Your task to perform on an android device: What's the weather going to be this weekend? Image 0: 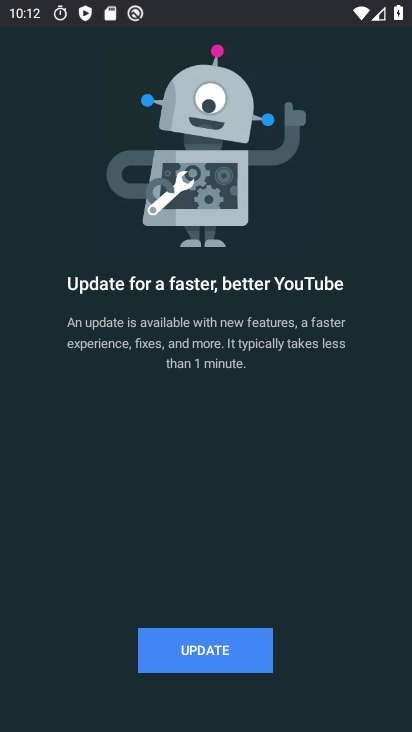
Step 0: press home button
Your task to perform on an android device: What's the weather going to be this weekend? Image 1: 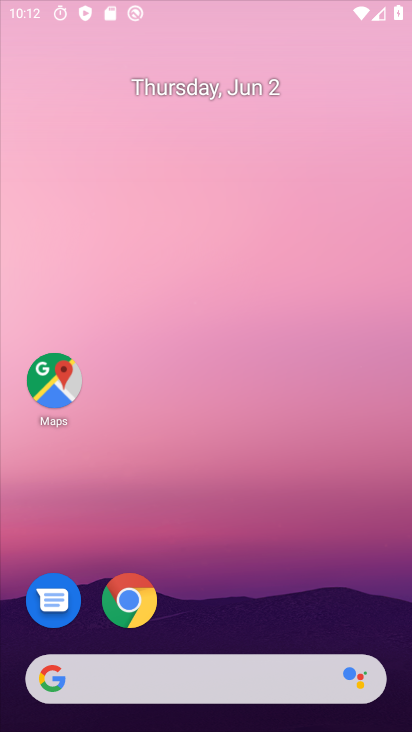
Step 1: drag from (206, 616) to (245, 69)
Your task to perform on an android device: What's the weather going to be this weekend? Image 2: 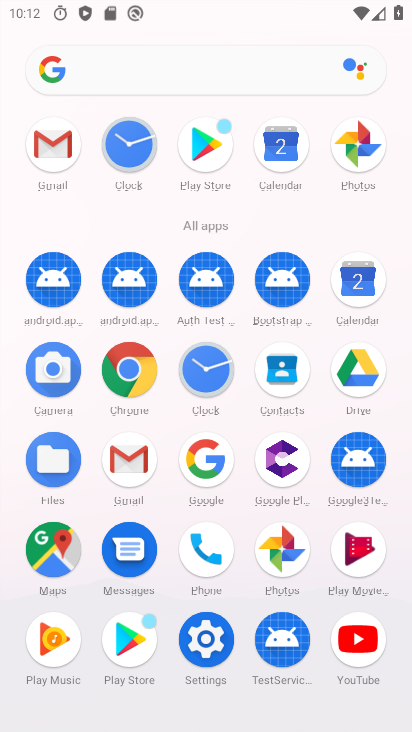
Step 2: click (203, 455)
Your task to perform on an android device: What's the weather going to be this weekend? Image 3: 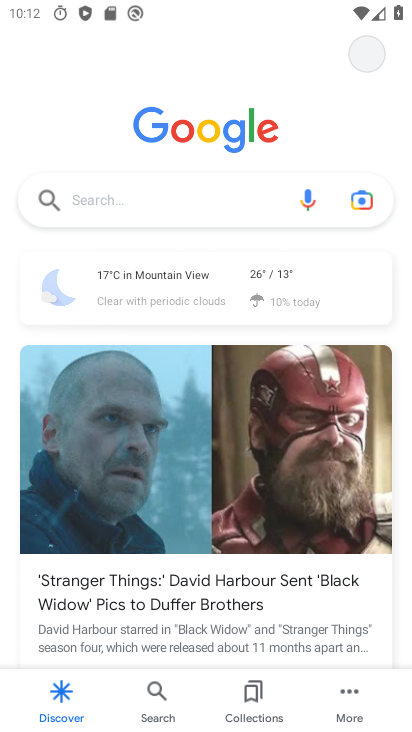
Step 3: click (177, 203)
Your task to perform on an android device: What's the weather going to be this weekend? Image 4: 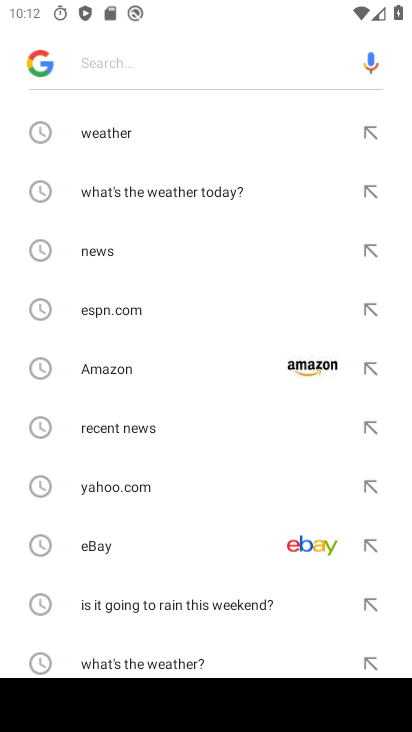
Step 4: drag from (196, 574) to (179, 126)
Your task to perform on an android device: What's the weather going to be this weekend? Image 5: 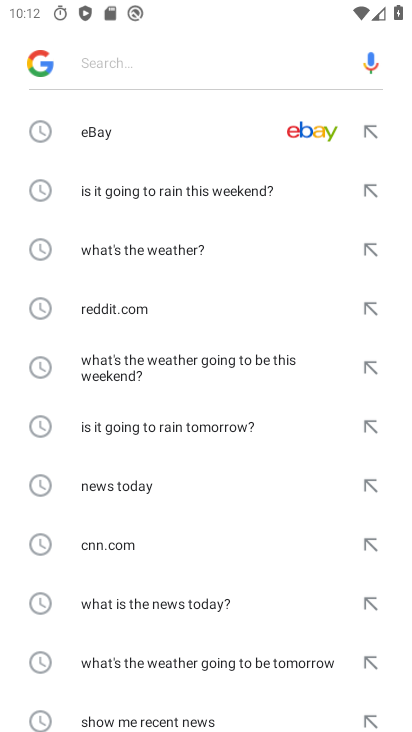
Step 5: click (194, 362)
Your task to perform on an android device: What's the weather going to be this weekend? Image 6: 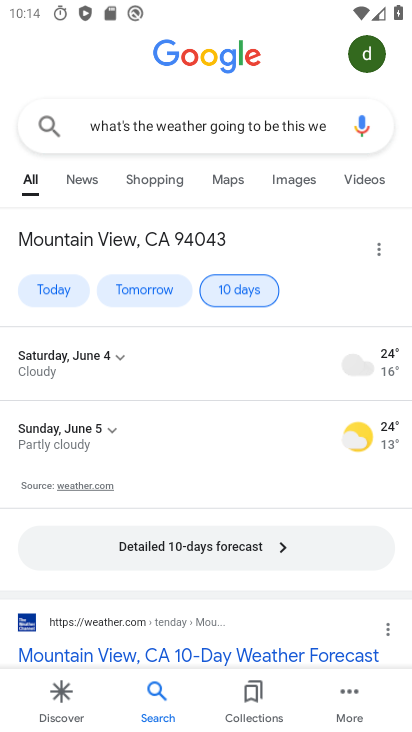
Step 6: task complete